Your task to perform on an android device: open app "NewsBreak: Local News & Alerts" (install if not already installed) and enter user name: "switch@outlook.com" and password: "fabrics" Image 0: 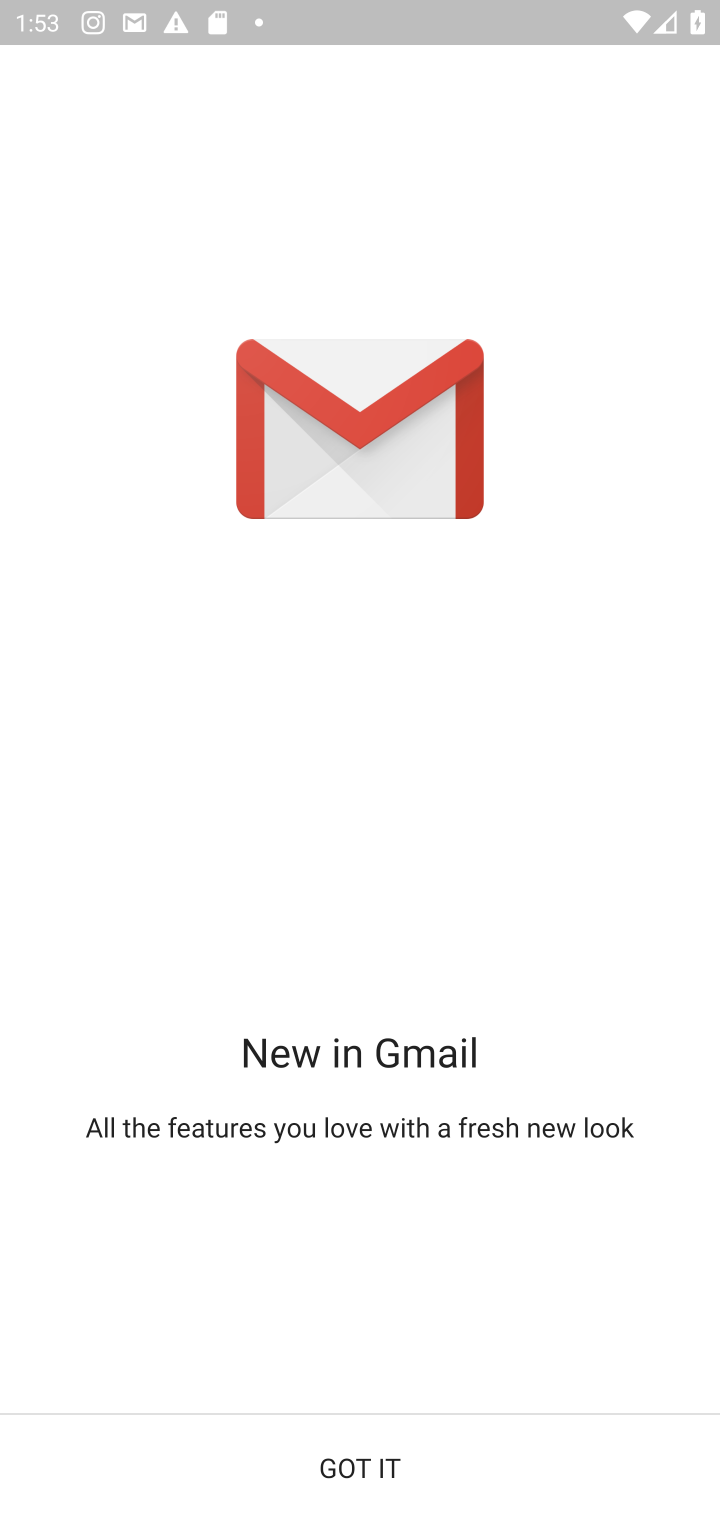
Step 0: press home button
Your task to perform on an android device: open app "NewsBreak: Local News & Alerts" (install if not already installed) and enter user name: "switch@outlook.com" and password: "fabrics" Image 1: 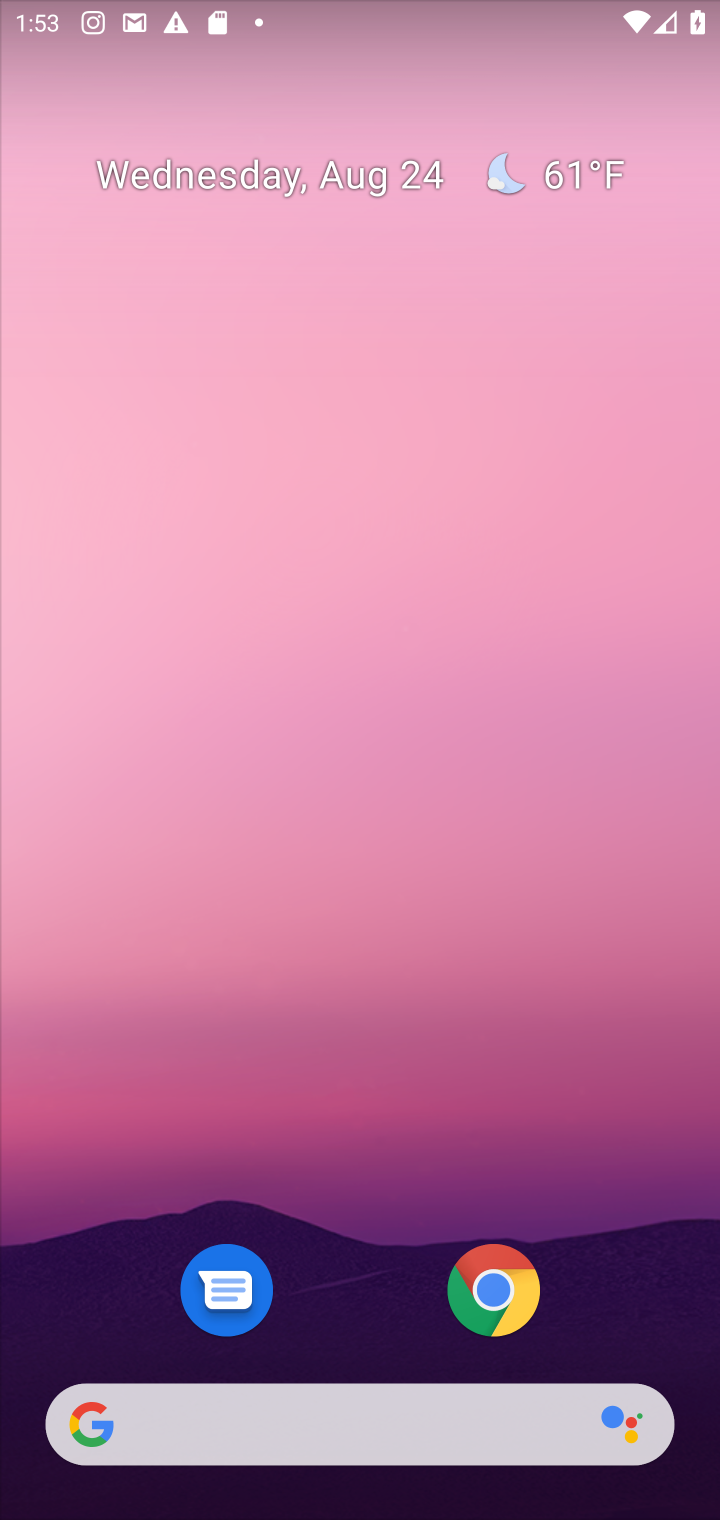
Step 1: drag from (386, 1258) to (385, 150)
Your task to perform on an android device: open app "NewsBreak: Local News & Alerts" (install if not already installed) and enter user name: "switch@outlook.com" and password: "fabrics" Image 2: 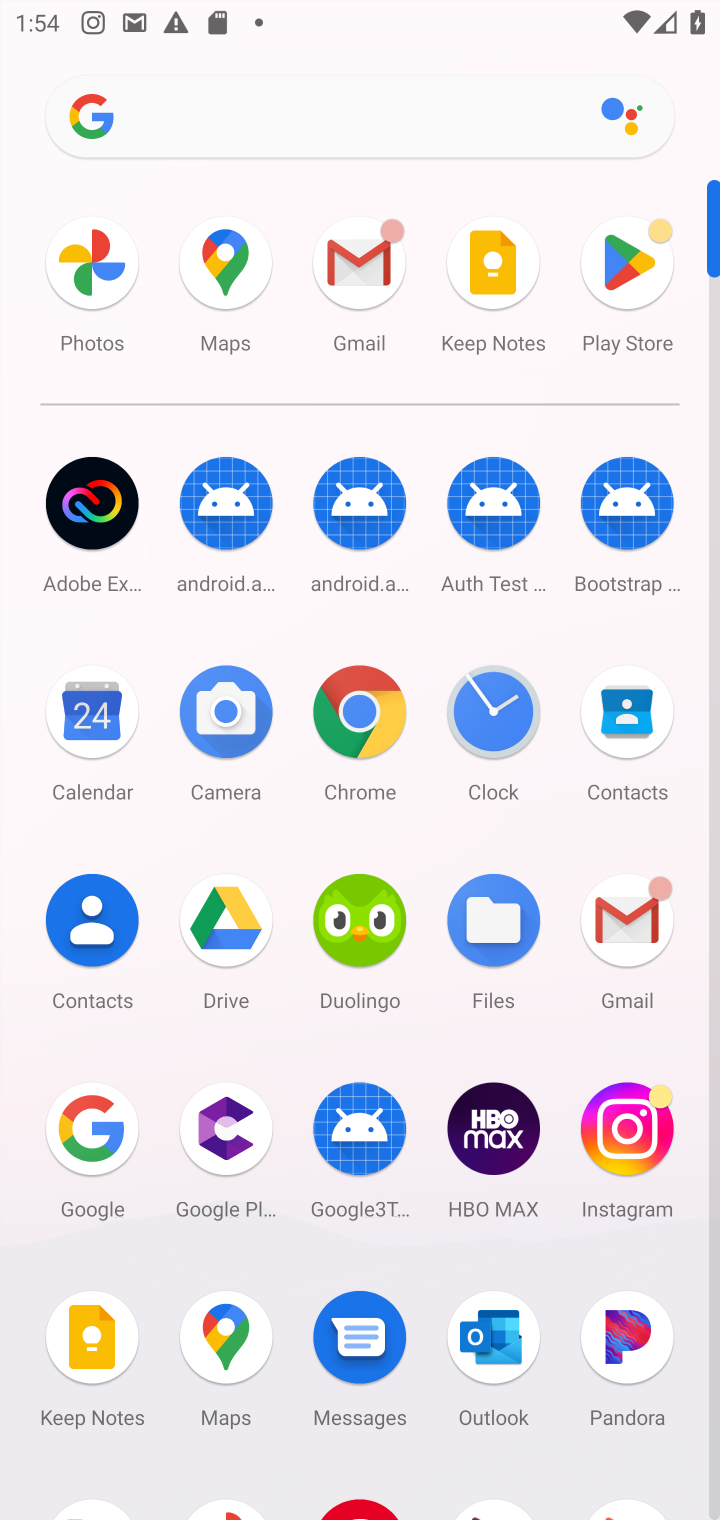
Step 2: click (639, 261)
Your task to perform on an android device: open app "NewsBreak: Local News & Alerts" (install if not already installed) and enter user name: "switch@outlook.com" and password: "fabrics" Image 3: 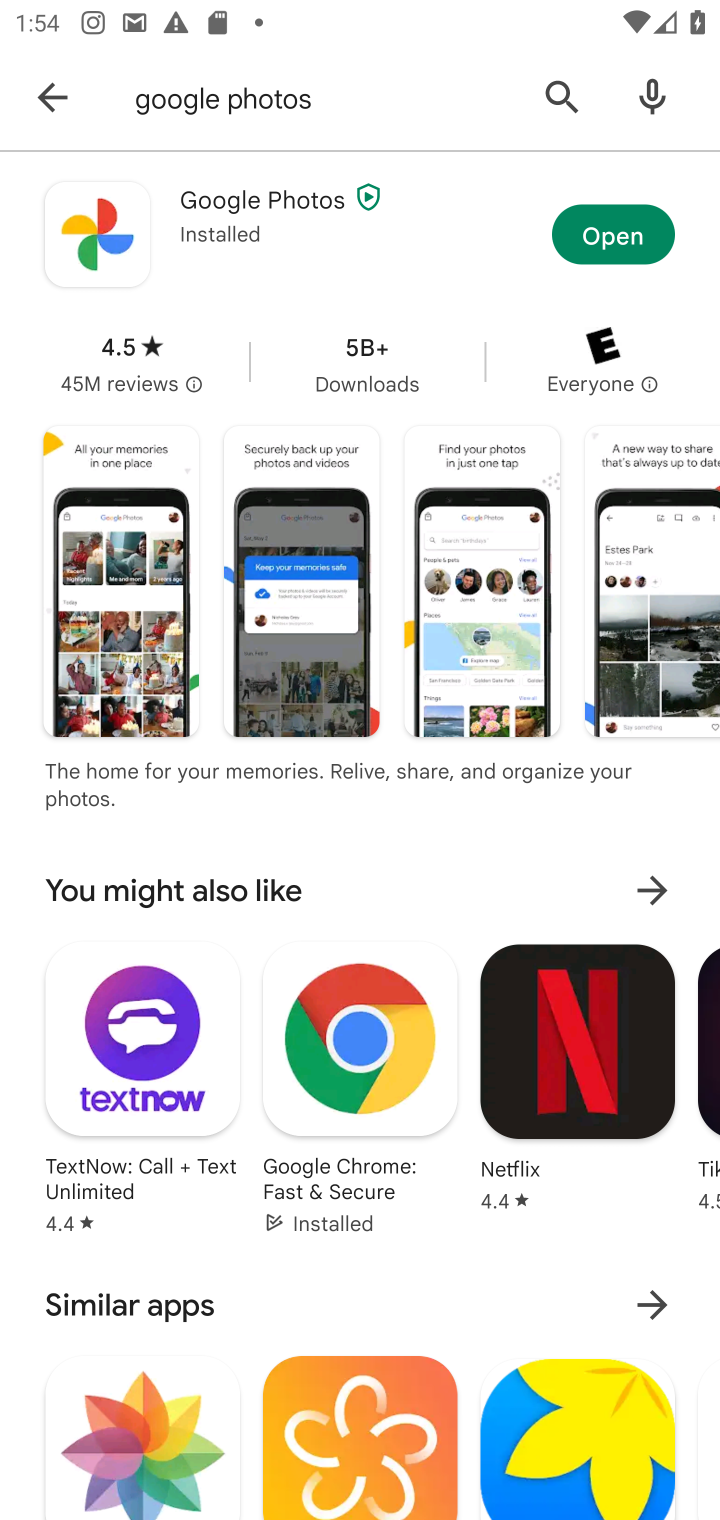
Step 3: click (42, 102)
Your task to perform on an android device: open app "NewsBreak: Local News & Alerts" (install if not already installed) and enter user name: "switch@outlook.com" and password: "fabrics" Image 4: 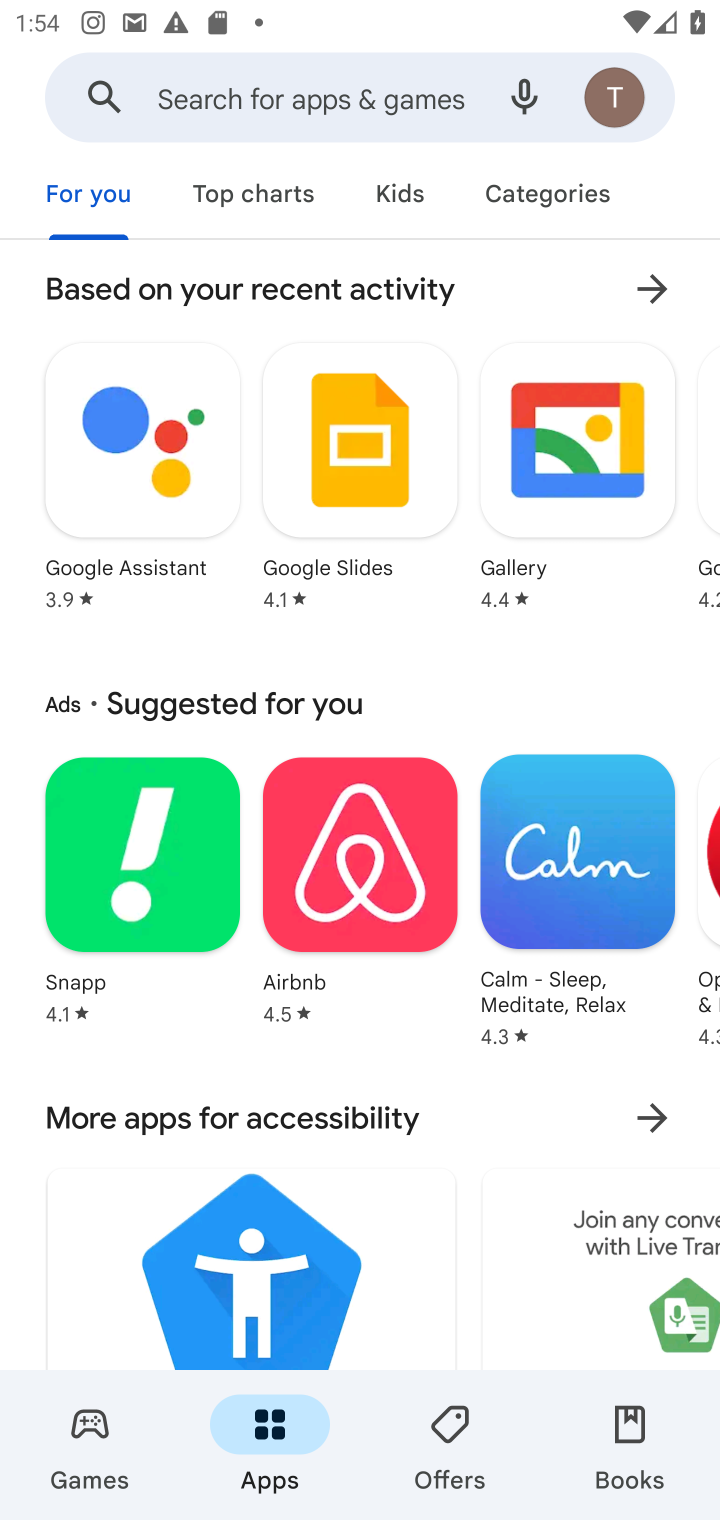
Step 4: click (154, 105)
Your task to perform on an android device: open app "NewsBreak: Local News & Alerts" (install if not already installed) and enter user name: "switch@outlook.com" and password: "fabrics" Image 5: 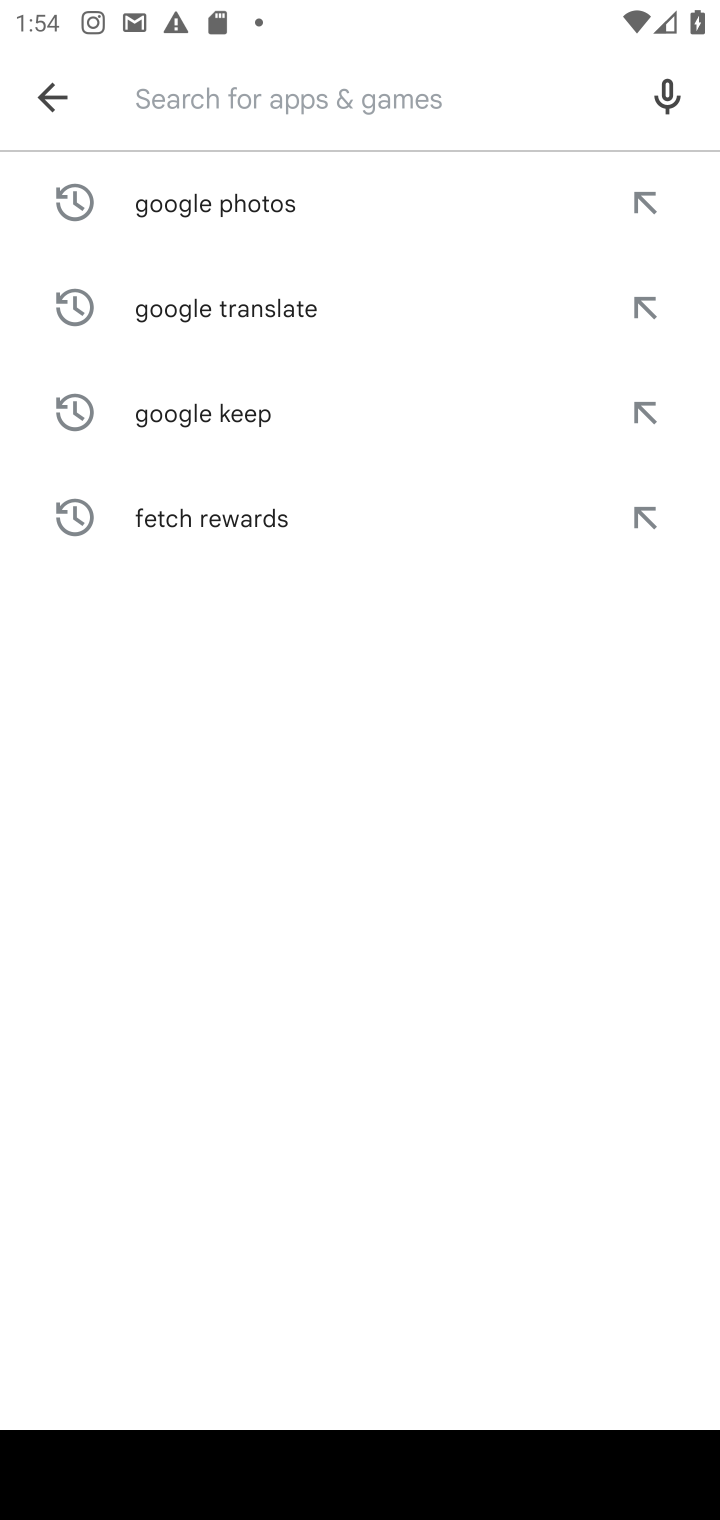
Step 5: type "NewsBreak: Local News & Alerts"
Your task to perform on an android device: open app "NewsBreak: Local News & Alerts" (install if not already installed) and enter user name: "switch@outlook.com" and password: "fabrics" Image 6: 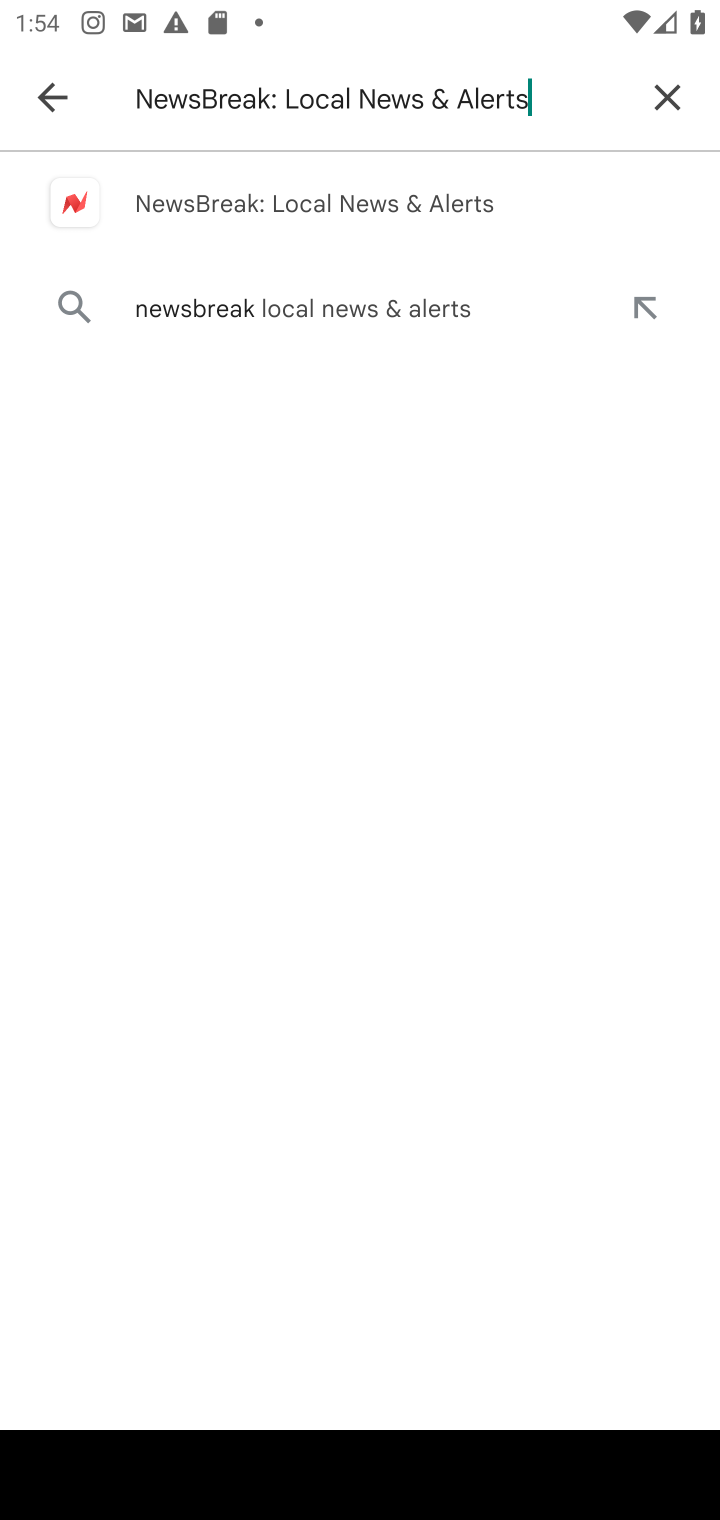
Step 6: click (182, 209)
Your task to perform on an android device: open app "NewsBreak: Local News & Alerts" (install if not already installed) and enter user name: "switch@outlook.com" and password: "fabrics" Image 7: 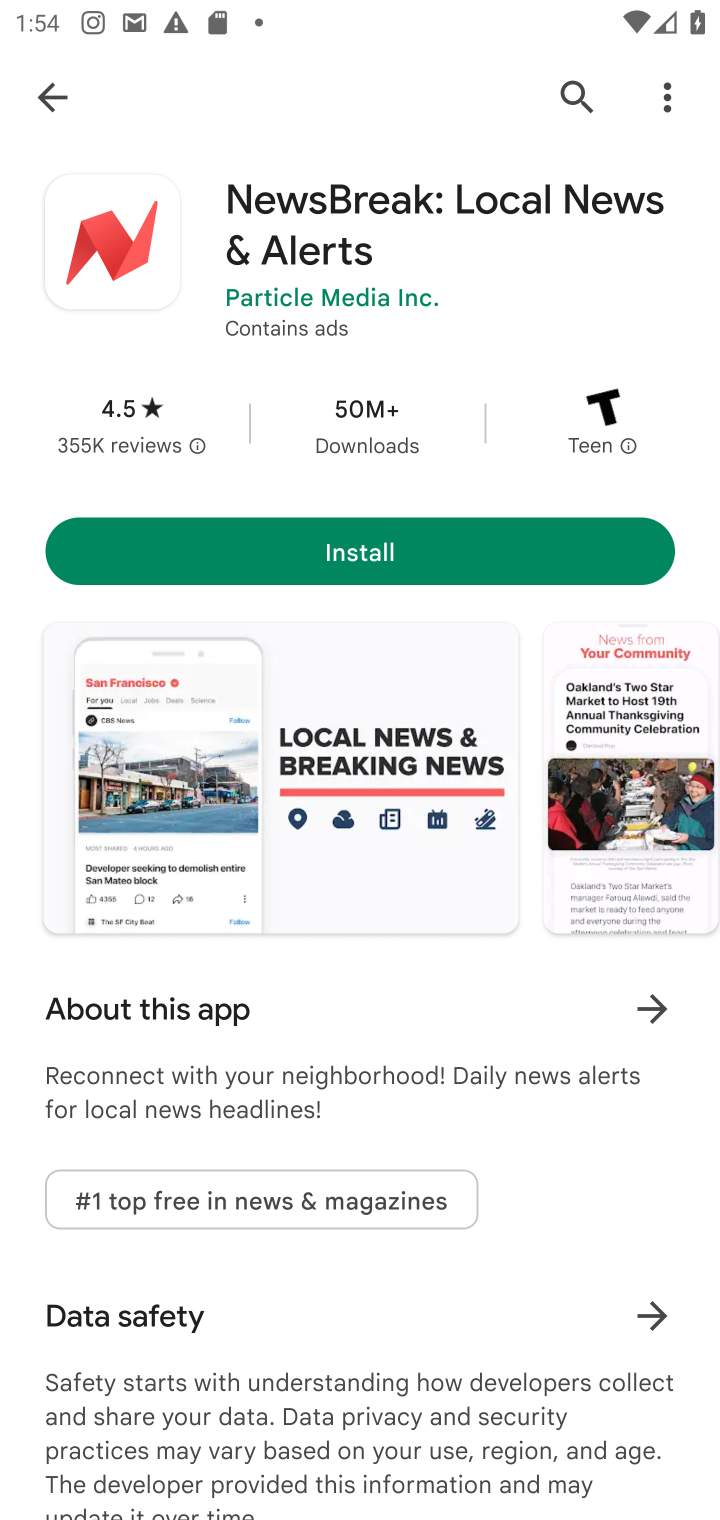
Step 7: click (339, 578)
Your task to perform on an android device: open app "NewsBreak: Local News & Alerts" (install if not already installed) and enter user name: "switch@outlook.com" and password: "fabrics" Image 8: 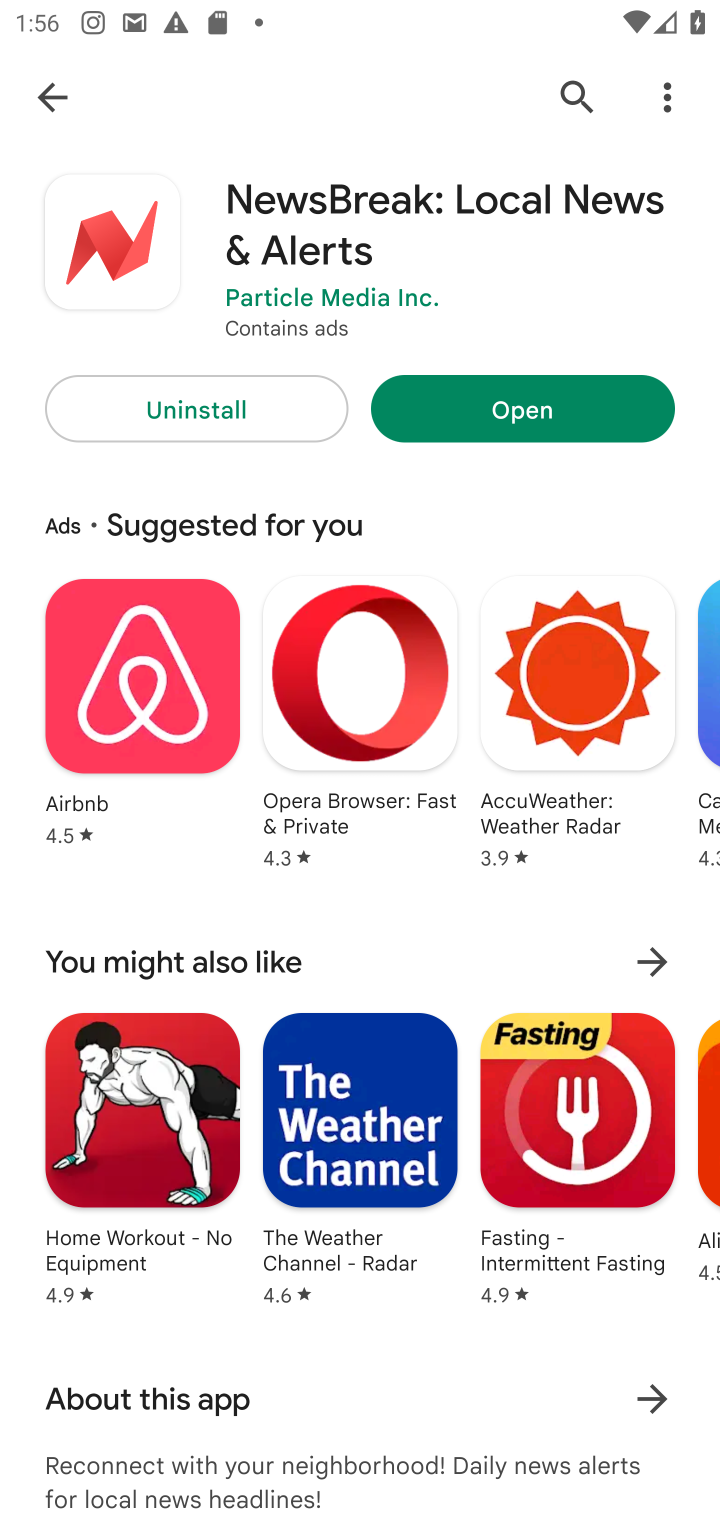
Step 8: click (502, 402)
Your task to perform on an android device: open app "NewsBreak: Local News & Alerts" (install if not already installed) and enter user name: "switch@outlook.com" and password: "fabrics" Image 9: 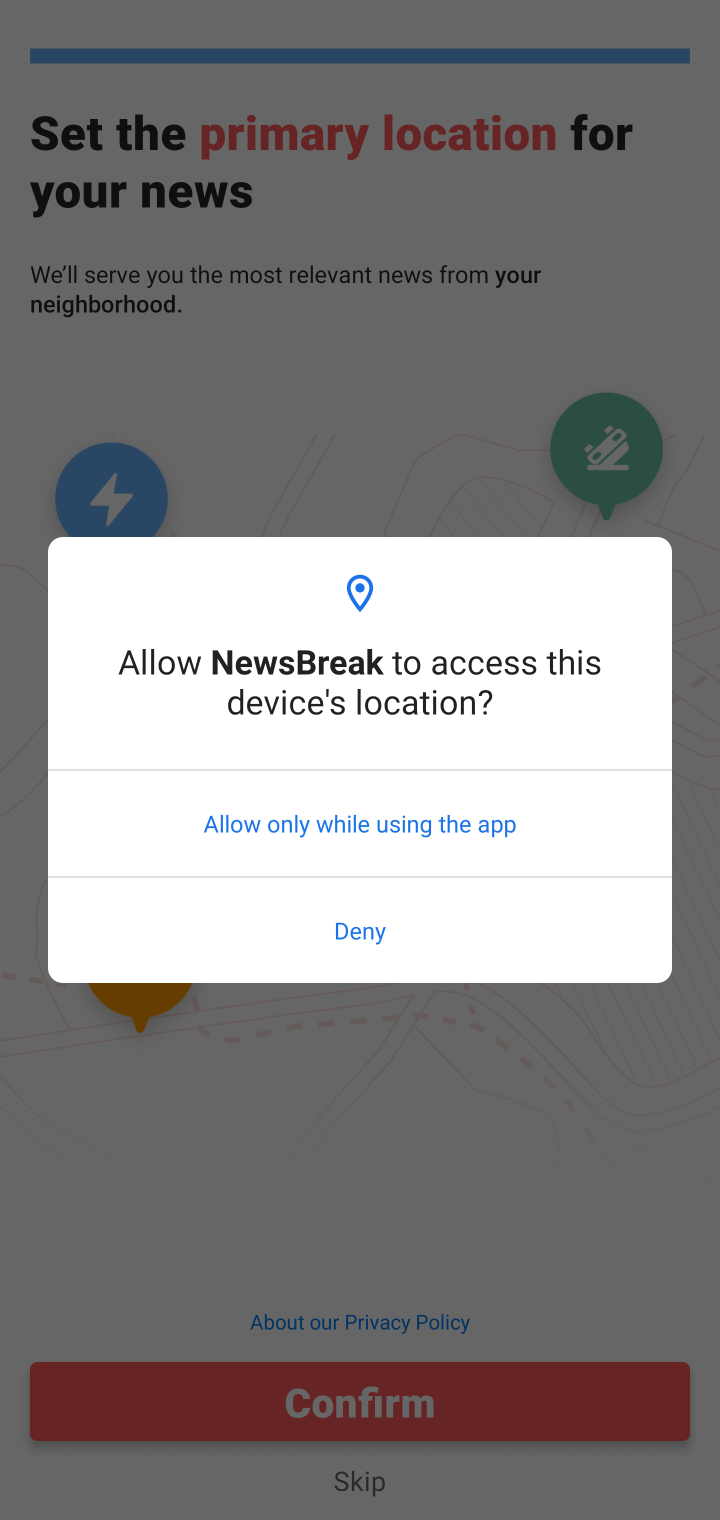
Step 9: click (343, 825)
Your task to perform on an android device: open app "NewsBreak: Local News & Alerts" (install if not already installed) and enter user name: "switch@outlook.com" and password: "fabrics" Image 10: 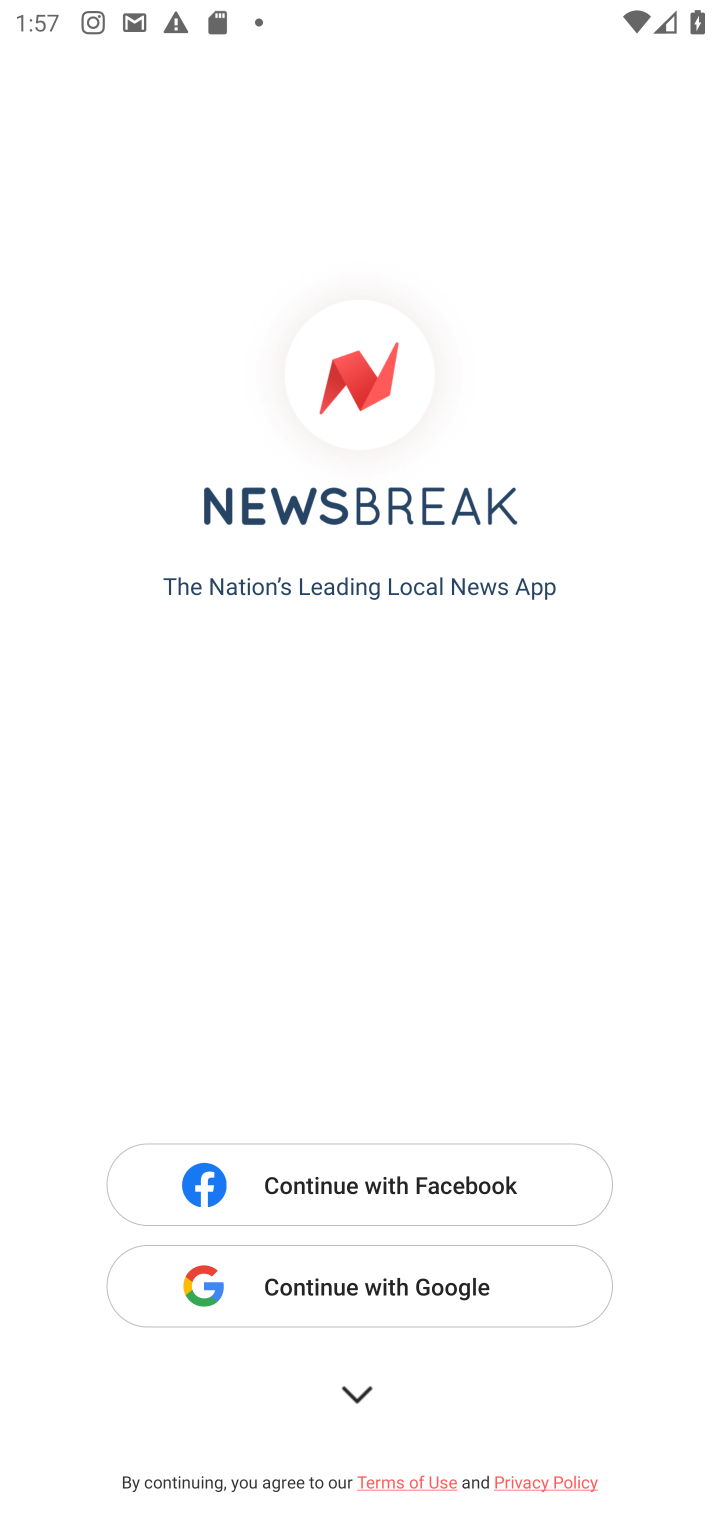
Step 10: task complete